Your task to perform on an android device: turn vacation reply on in the gmail app Image 0: 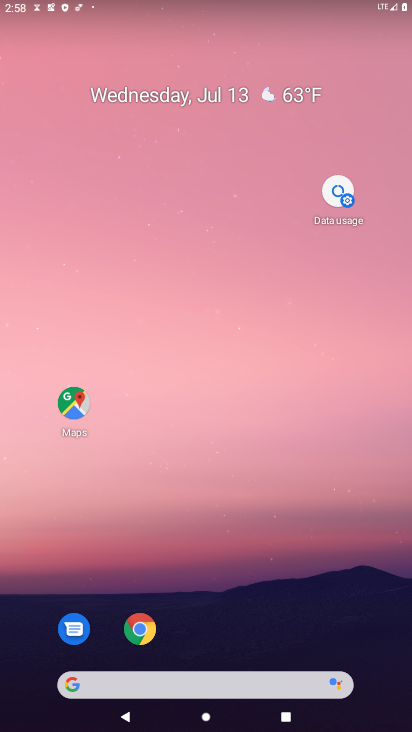
Step 0: drag from (195, 651) to (179, 177)
Your task to perform on an android device: turn vacation reply on in the gmail app Image 1: 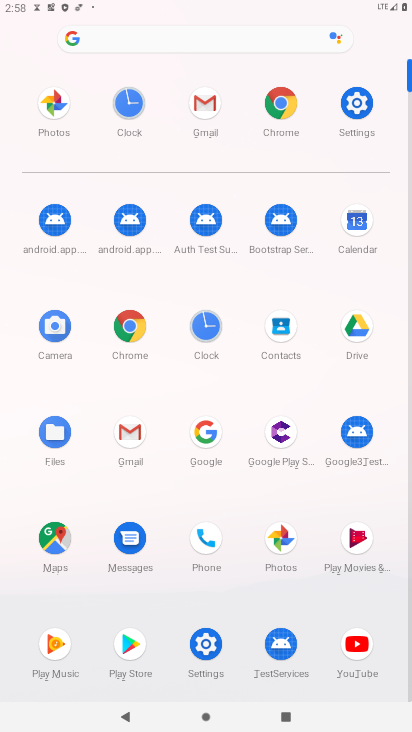
Step 1: click (120, 441)
Your task to perform on an android device: turn vacation reply on in the gmail app Image 2: 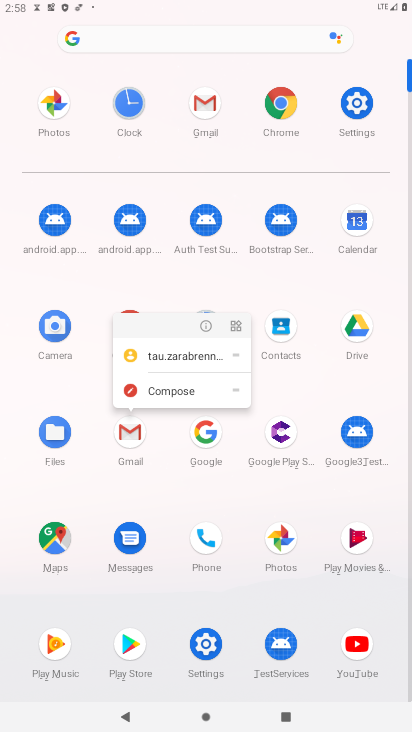
Step 2: click (206, 327)
Your task to perform on an android device: turn vacation reply on in the gmail app Image 3: 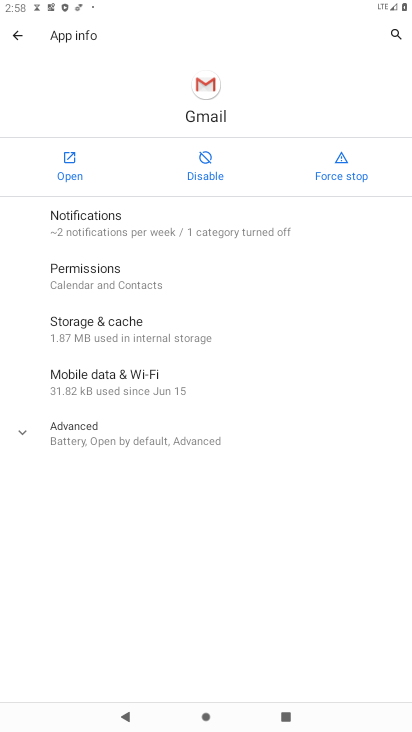
Step 3: click (76, 173)
Your task to perform on an android device: turn vacation reply on in the gmail app Image 4: 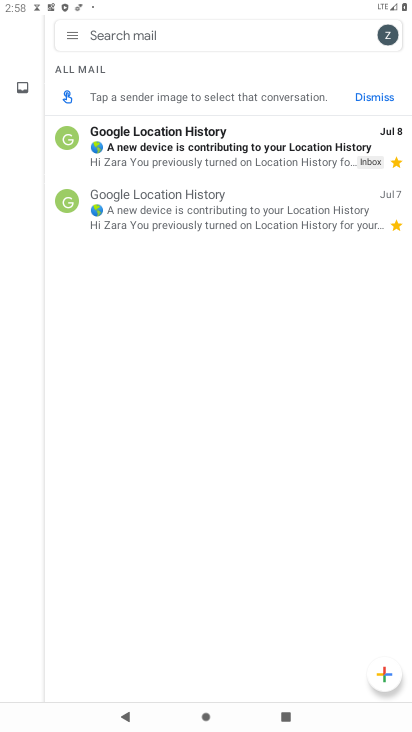
Step 4: click (58, 29)
Your task to perform on an android device: turn vacation reply on in the gmail app Image 5: 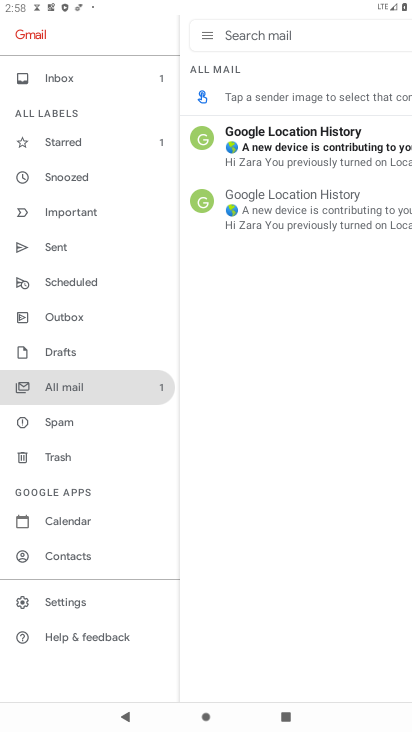
Step 5: click (198, 31)
Your task to perform on an android device: turn vacation reply on in the gmail app Image 6: 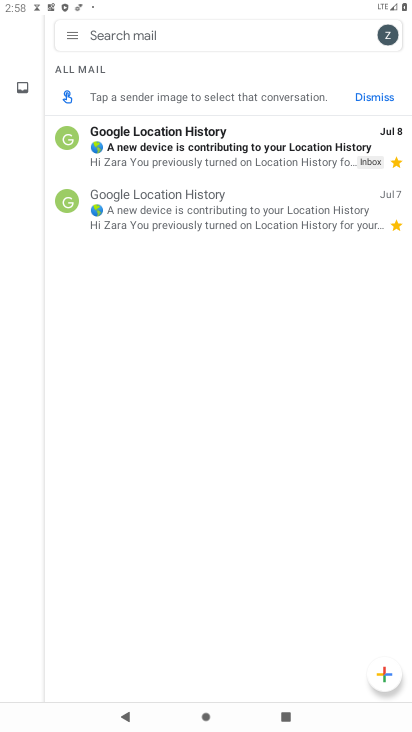
Step 6: click (77, 39)
Your task to perform on an android device: turn vacation reply on in the gmail app Image 7: 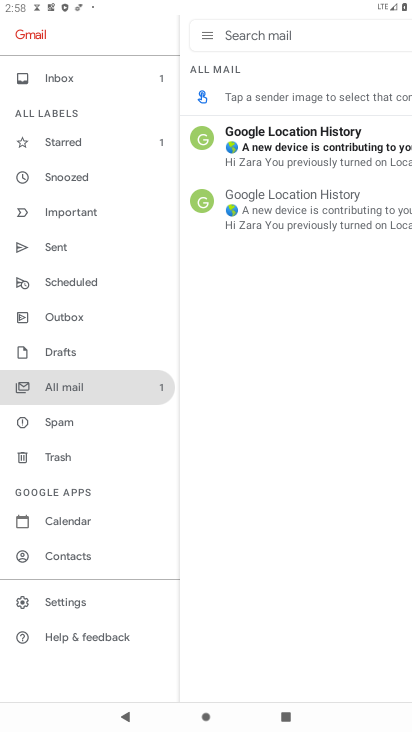
Step 7: click (57, 597)
Your task to perform on an android device: turn vacation reply on in the gmail app Image 8: 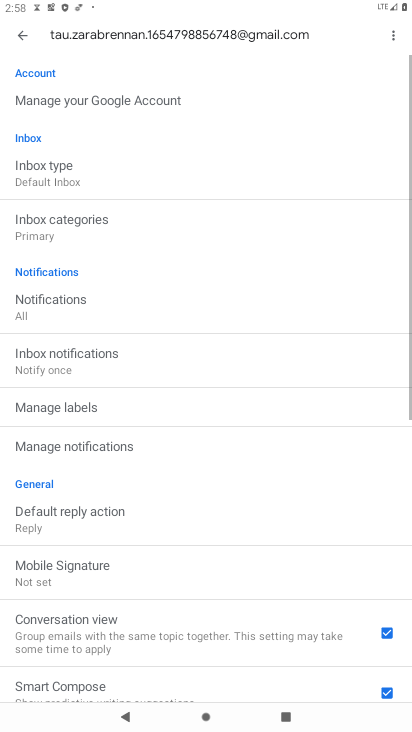
Step 8: drag from (118, 540) to (88, 244)
Your task to perform on an android device: turn vacation reply on in the gmail app Image 9: 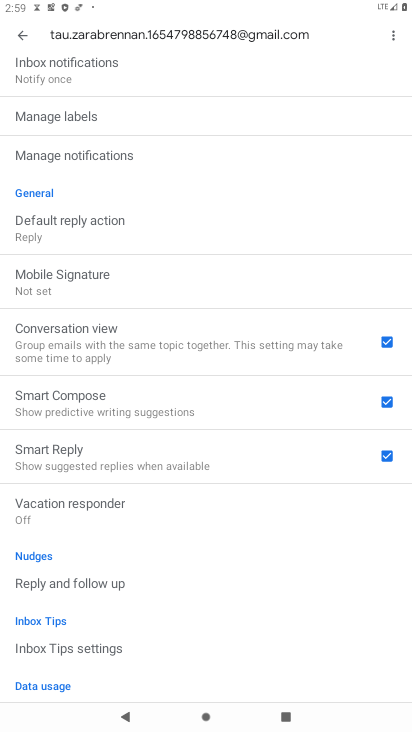
Step 9: drag from (144, 206) to (274, 538)
Your task to perform on an android device: turn vacation reply on in the gmail app Image 10: 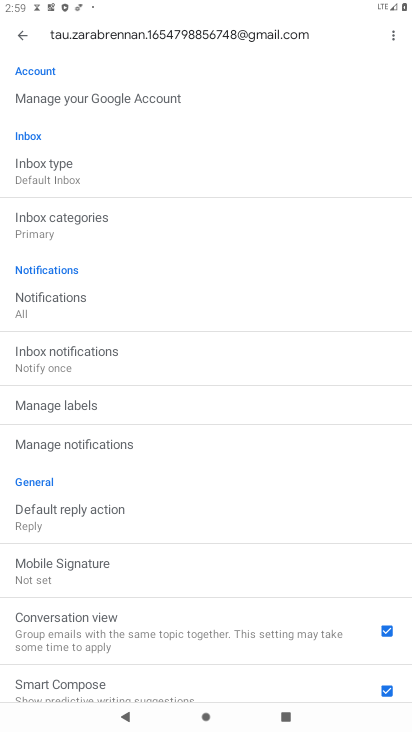
Step 10: drag from (102, 164) to (233, 480)
Your task to perform on an android device: turn vacation reply on in the gmail app Image 11: 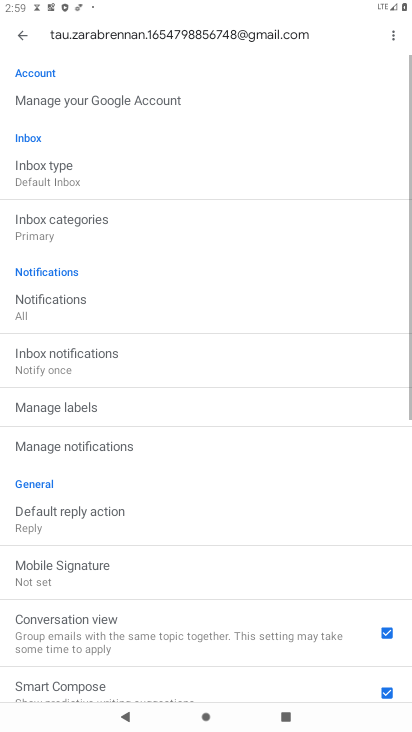
Step 11: drag from (210, 467) to (280, 81)
Your task to perform on an android device: turn vacation reply on in the gmail app Image 12: 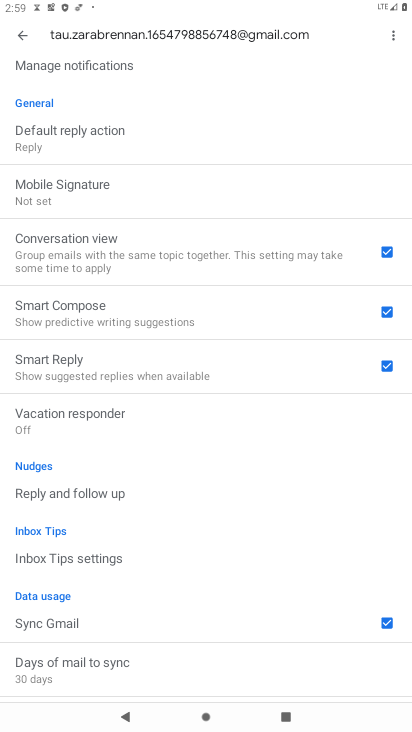
Step 12: click (122, 416)
Your task to perform on an android device: turn vacation reply on in the gmail app Image 13: 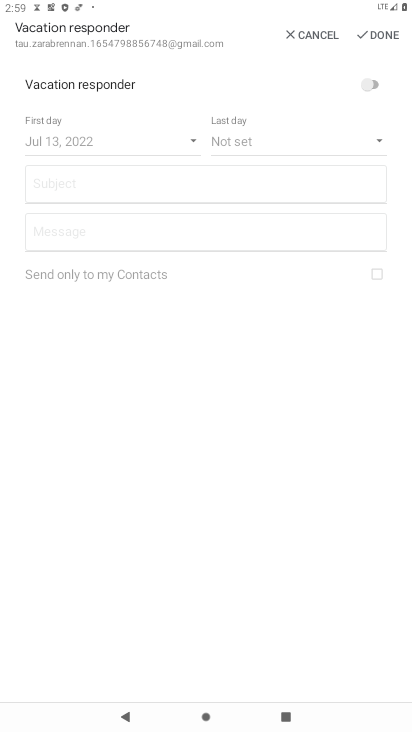
Step 13: click (368, 86)
Your task to perform on an android device: turn vacation reply on in the gmail app Image 14: 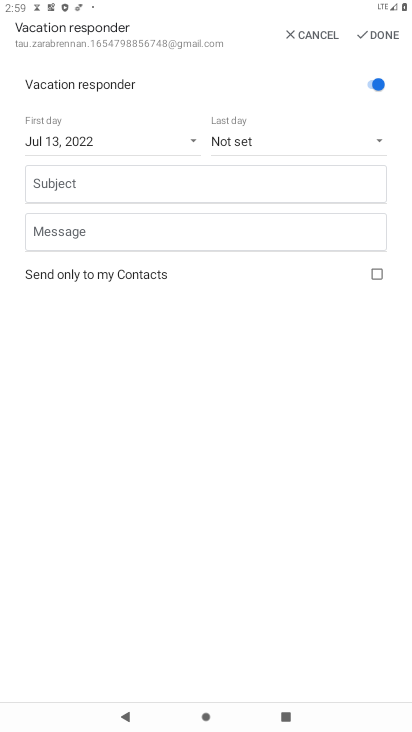
Step 14: click (370, 35)
Your task to perform on an android device: turn vacation reply on in the gmail app Image 15: 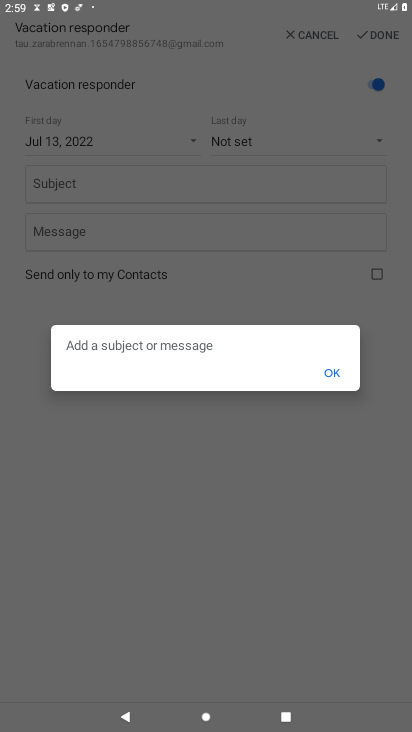
Step 15: click (333, 370)
Your task to perform on an android device: turn vacation reply on in the gmail app Image 16: 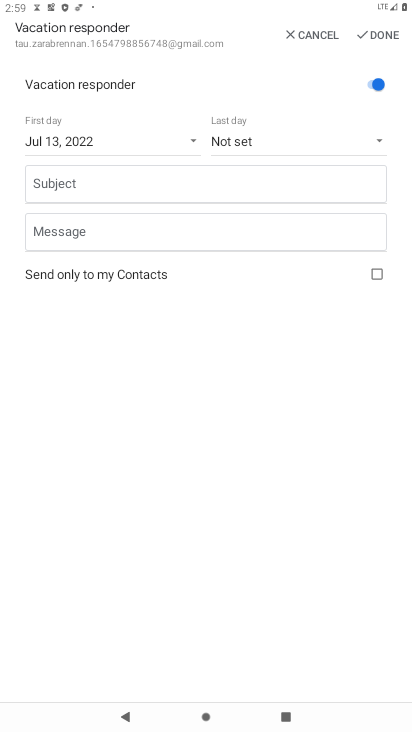
Step 16: click (379, 39)
Your task to perform on an android device: turn vacation reply on in the gmail app Image 17: 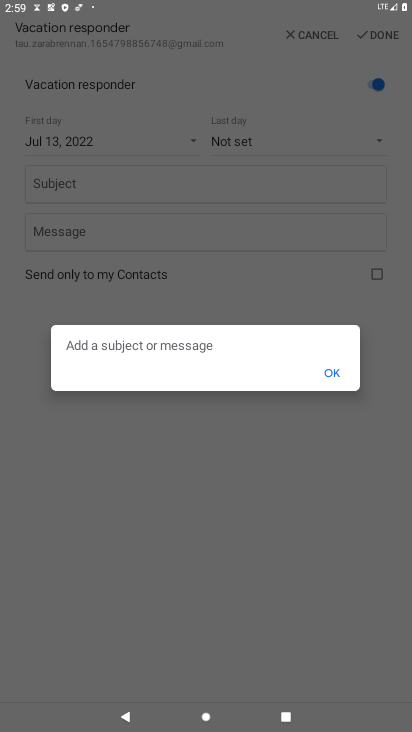
Step 17: click (322, 373)
Your task to perform on an android device: turn vacation reply on in the gmail app Image 18: 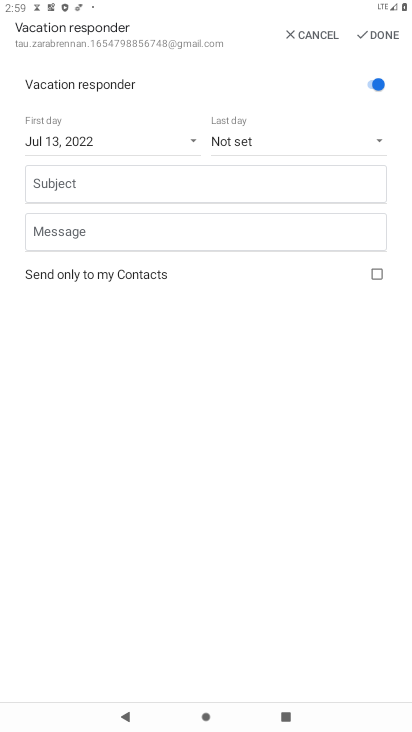
Step 18: task complete